Your task to perform on an android device: open sync settings in chrome Image 0: 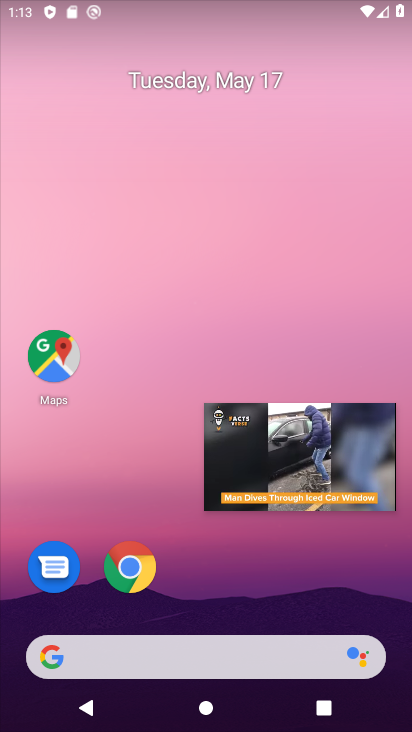
Step 0: click (372, 426)
Your task to perform on an android device: open sync settings in chrome Image 1: 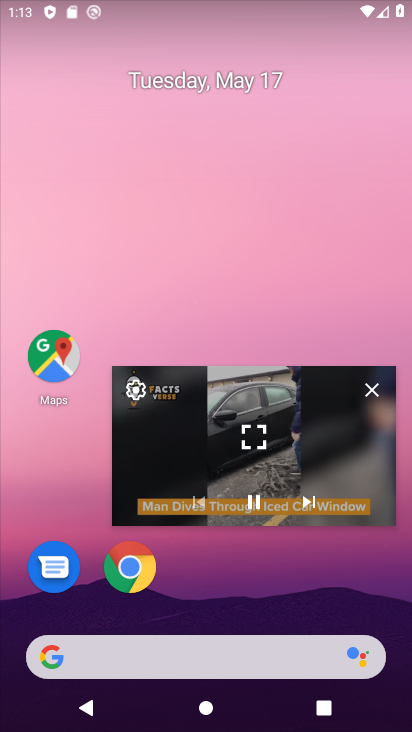
Step 1: click (368, 390)
Your task to perform on an android device: open sync settings in chrome Image 2: 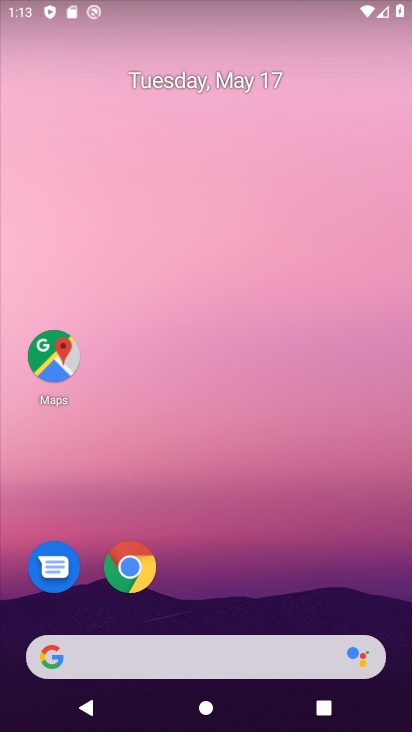
Step 2: click (132, 567)
Your task to perform on an android device: open sync settings in chrome Image 3: 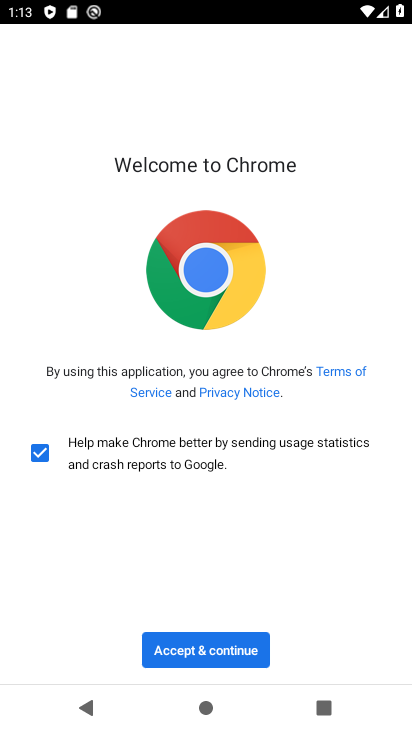
Step 3: click (209, 654)
Your task to perform on an android device: open sync settings in chrome Image 4: 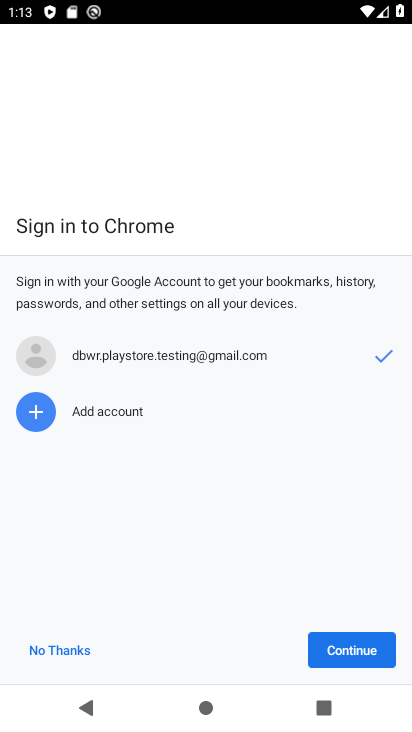
Step 4: click (334, 651)
Your task to perform on an android device: open sync settings in chrome Image 5: 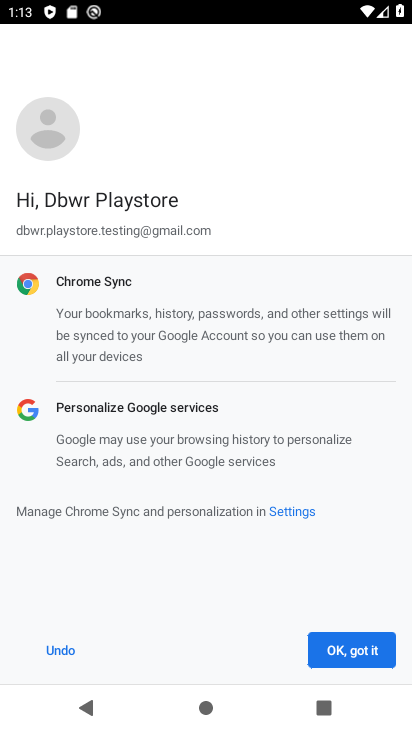
Step 5: click (334, 651)
Your task to perform on an android device: open sync settings in chrome Image 6: 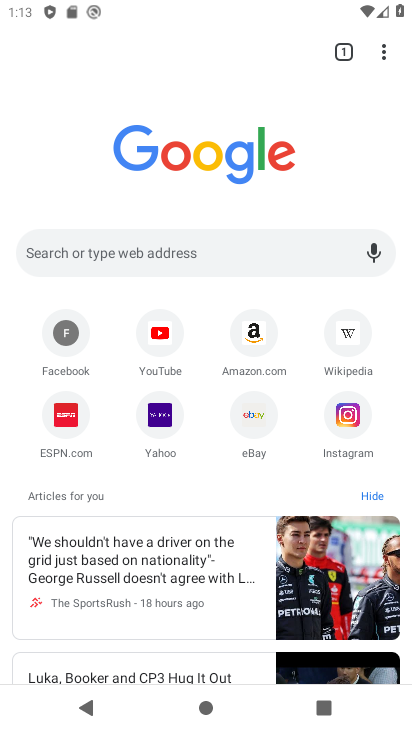
Step 6: click (381, 55)
Your task to perform on an android device: open sync settings in chrome Image 7: 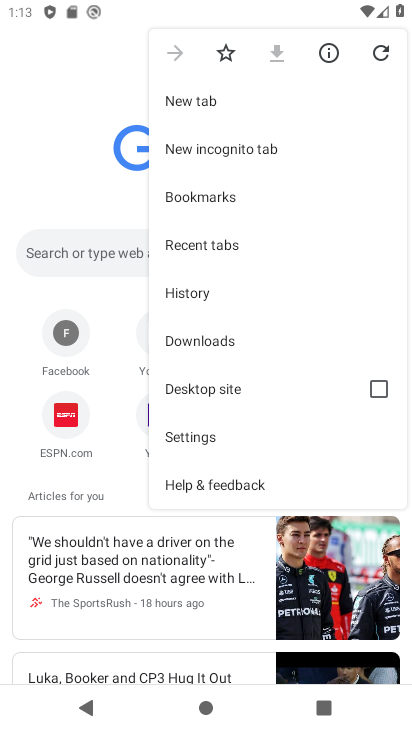
Step 7: click (205, 431)
Your task to perform on an android device: open sync settings in chrome Image 8: 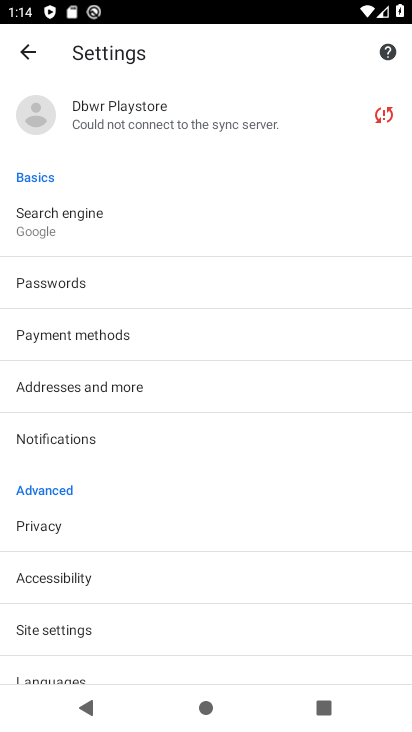
Step 8: click (125, 108)
Your task to perform on an android device: open sync settings in chrome Image 9: 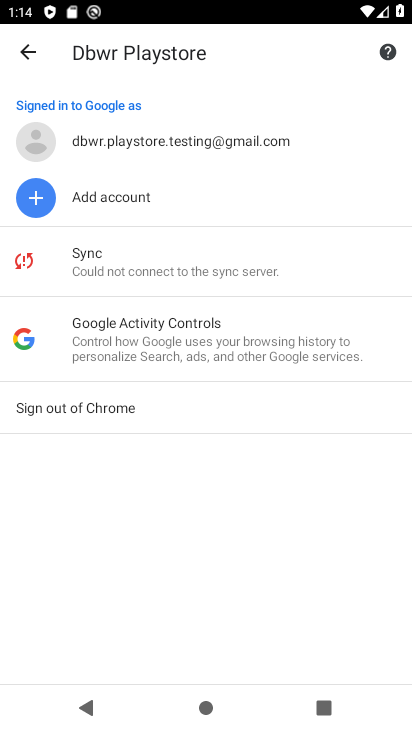
Step 9: click (108, 260)
Your task to perform on an android device: open sync settings in chrome Image 10: 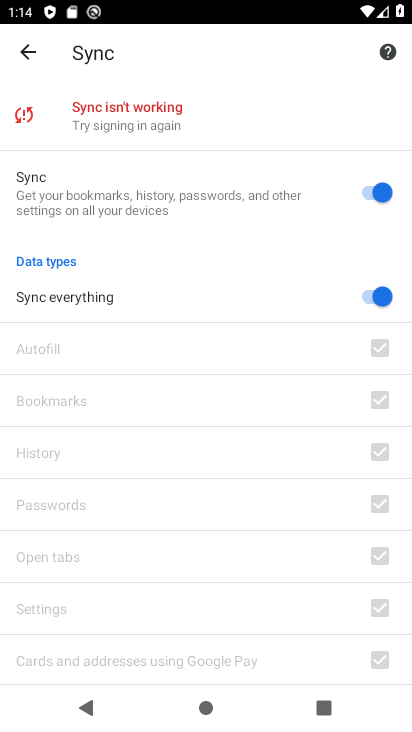
Step 10: task complete